Your task to perform on an android device: turn off priority inbox in the gmail app Image 0: 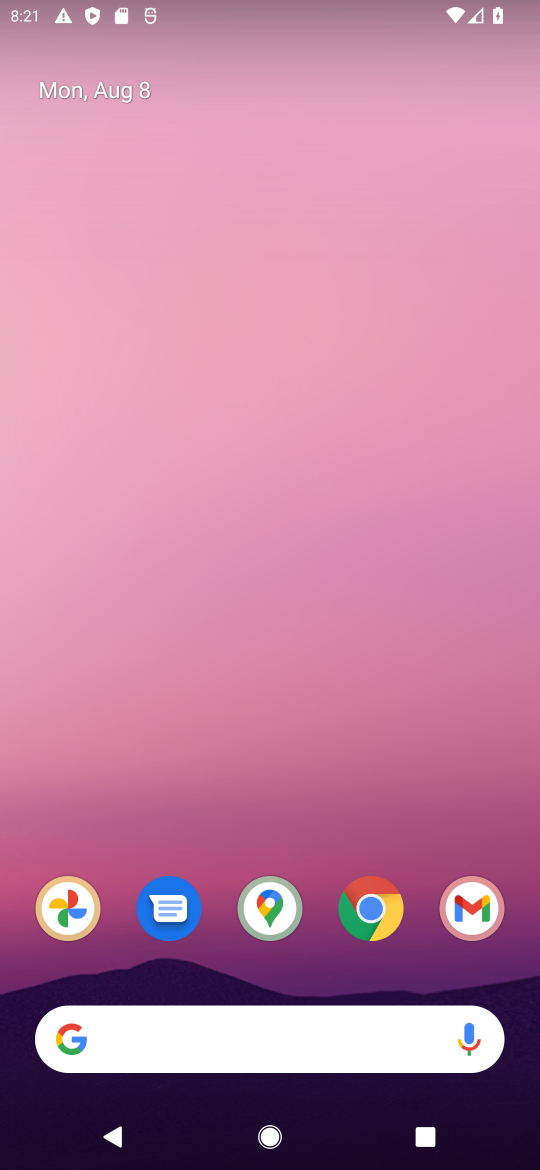
Step 0: drag from (219, 957) to (221, 184)
Your task to perform on an android device: turn off priority inbox in the gmail app Image 1: 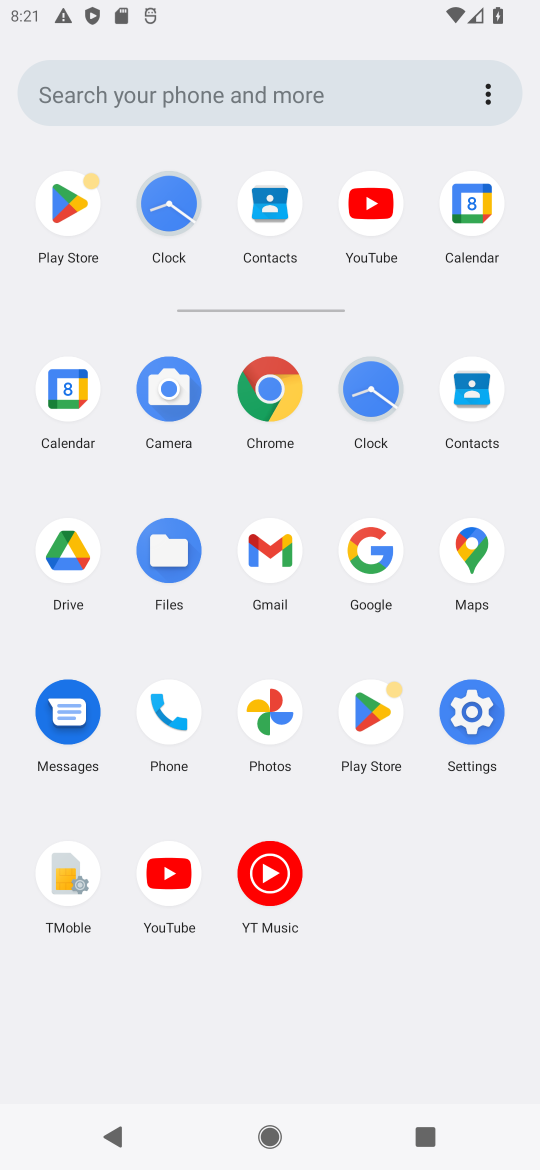
Step 1: click (250, 531)
Your task to perform on an android device: turn off priority inbox in the gmail app Image 2: 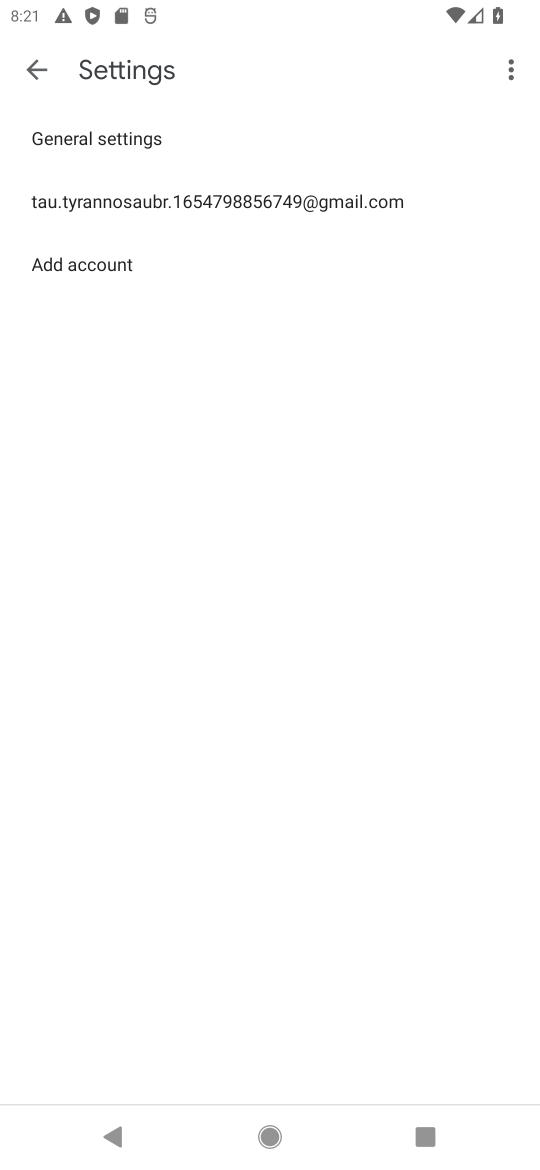
Step 2: click (240, 209)
Your task to perform on an android device: turn off priority inbox in the gmail app Image 3: 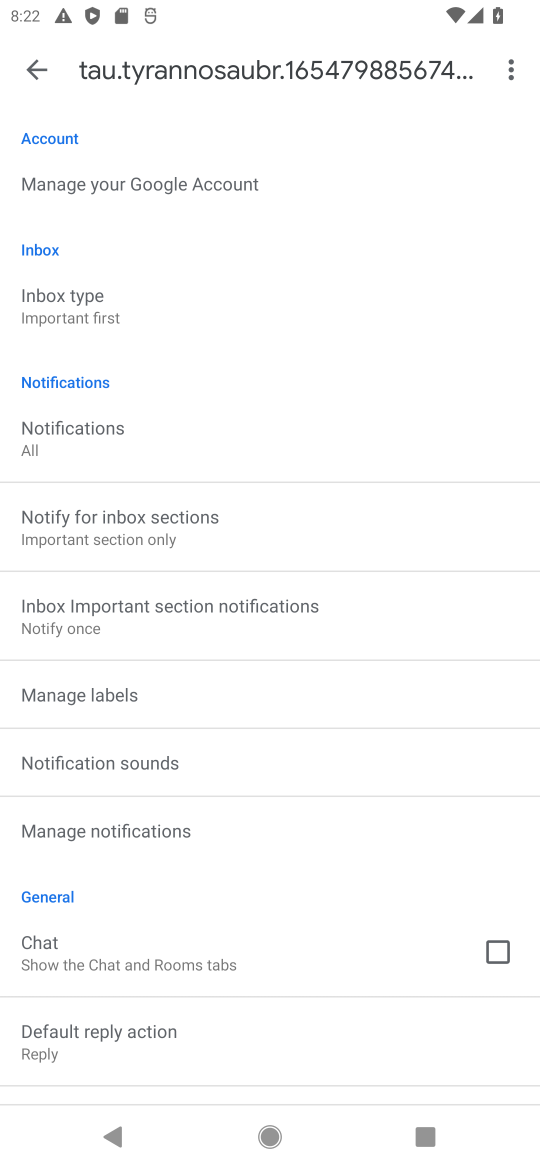
Step 3: click (118, 320)
Your task to perform on an android device: turn off priority inbox in the gmail app Image 4: 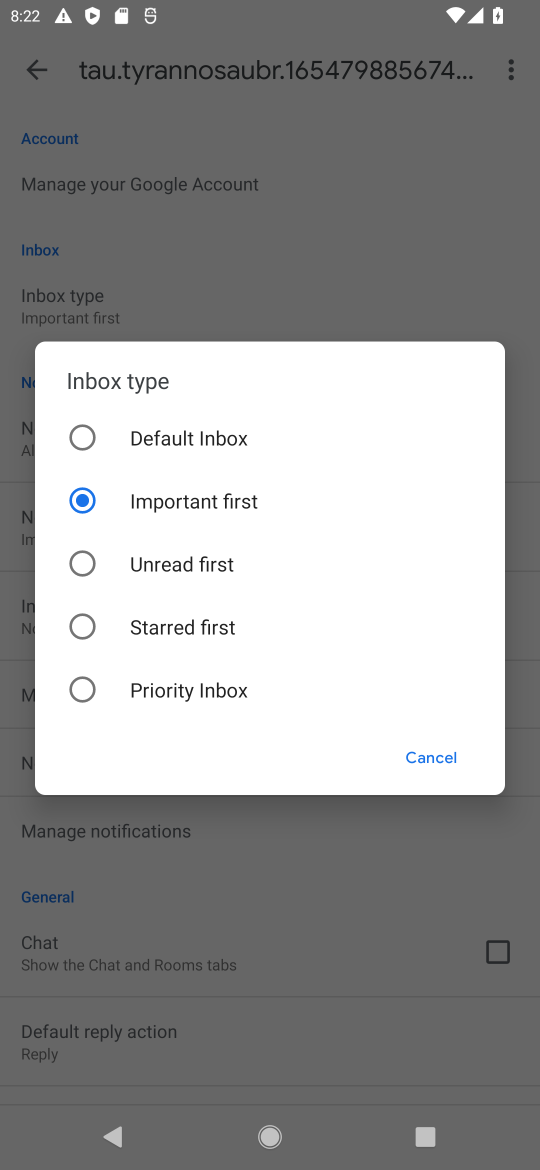
Step 4: click (236, 626)
Your task to perform on an android device: turn off priority inbox in the gmail app Image 5: 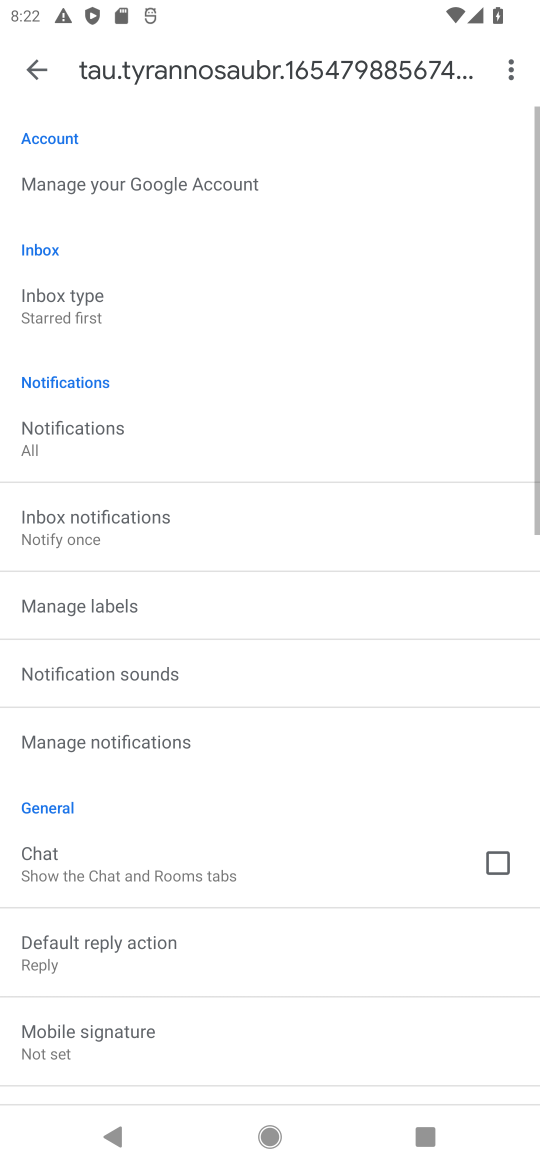
Step 5: task complete